Your task to perform on an android device: turn off improve location accuracy Image 0: 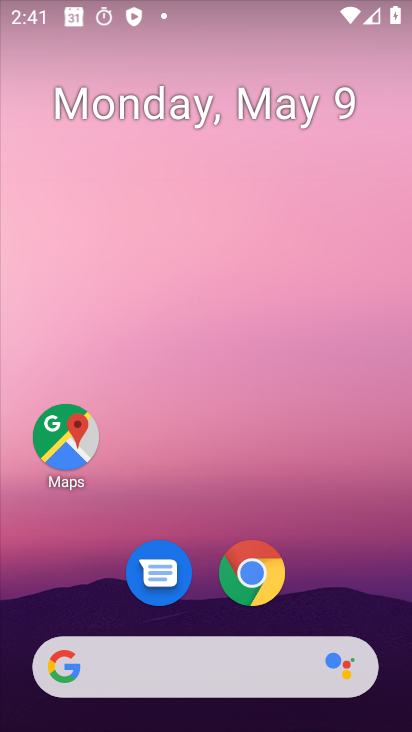
Step 0: drag from (339, 609) to (192, 163)
Your task to perform on an android device: turn off improve location accuracy Image 1: 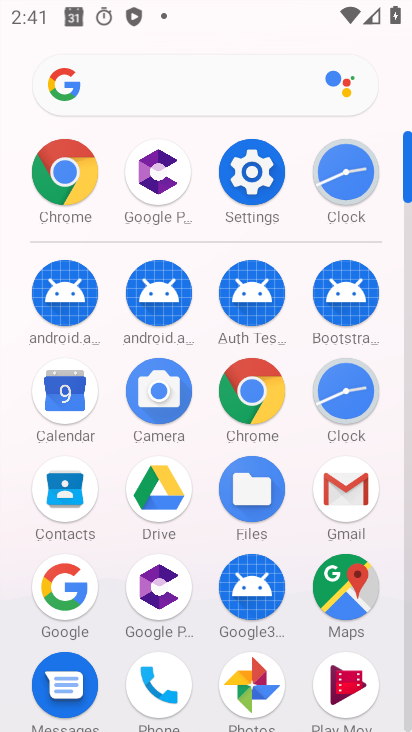
Step 1: click (250, 169)
Your task to perform on an android device: turn off improve location accuracy Image 2: 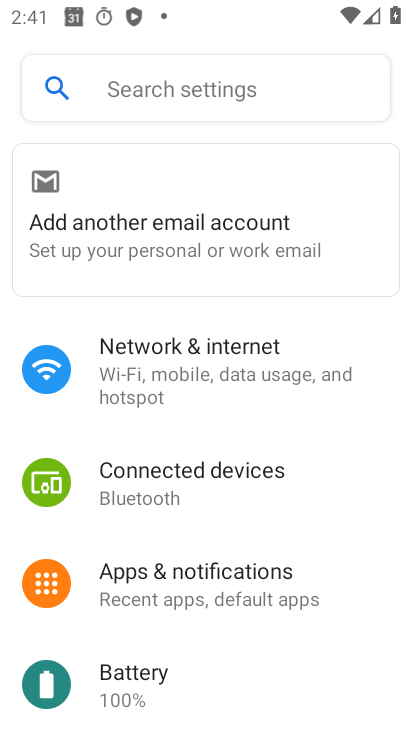
Step 2: drag from (246, 361) to (181, 52)
Your task to perform on an android device: turn off improve location accuracy Image 3: 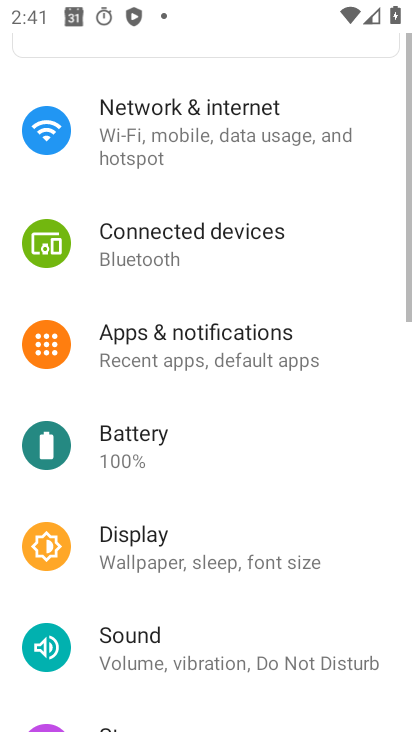
Step 3: drag from (271, 642) to (119, 64)
Your task to perform on an android device: turn off improve location accuracy Image 4: 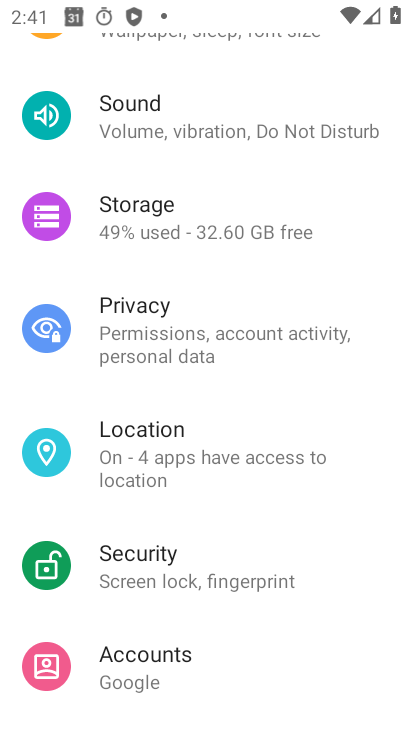
Step 4: click (154, 458)
Your task to perform on an android device: turn off improve location accuracy Image 5: 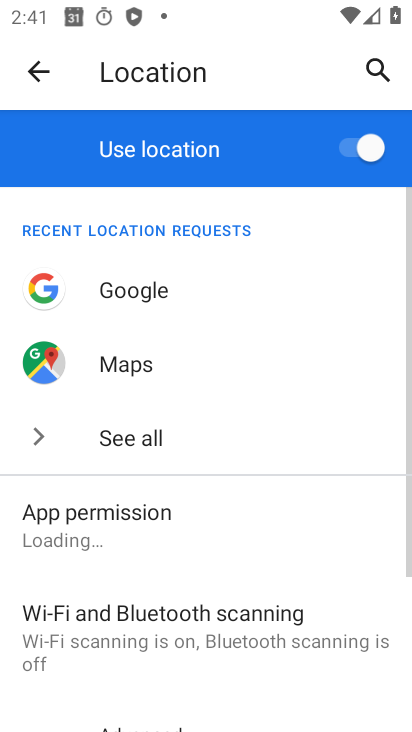
Step 5: click (82, 511)
Your task to perform on an android device: turn off improve location accuracy Image 6: 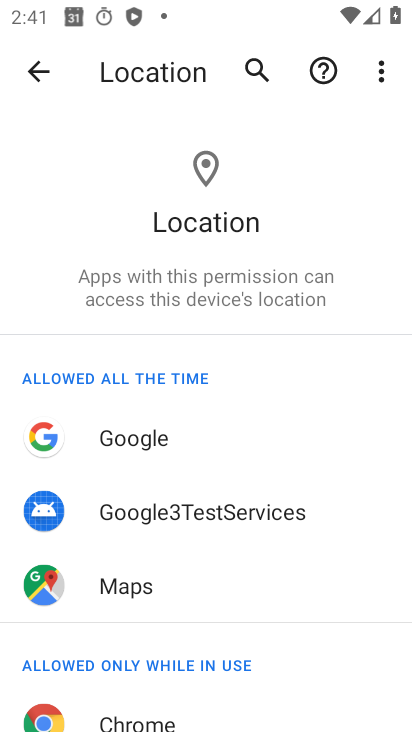
Step 6: click (34, 79)
Your task to perform on an android device: turn off improve location accuracy Image 7: 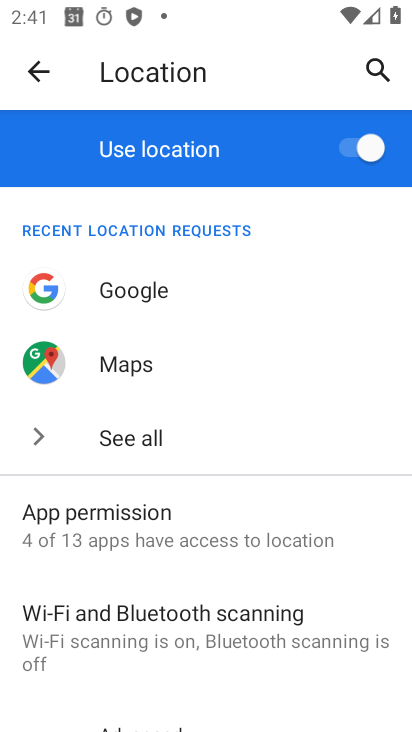
Step 7: click (114, 528)
Your task to perform on an android device: turn off improve location accuracy Image 8: 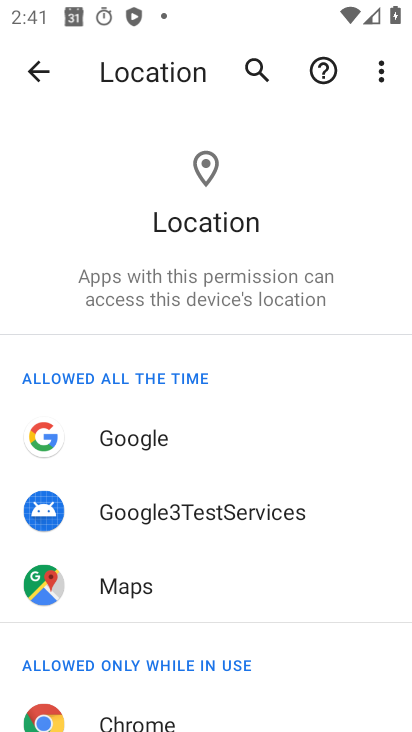
Step 8: click (37, 88)
Your task to perform on an android device: turn off improve location accuracy Image 9: 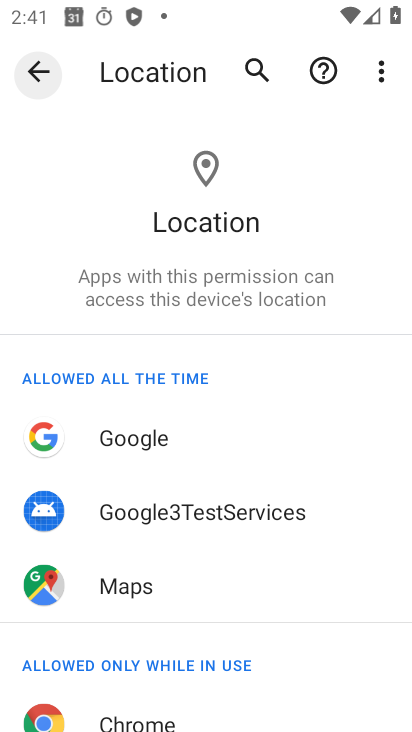
Step 9: click (37, 88)
Your task to perform on an android device: turn off improve location accuracy Image 10: 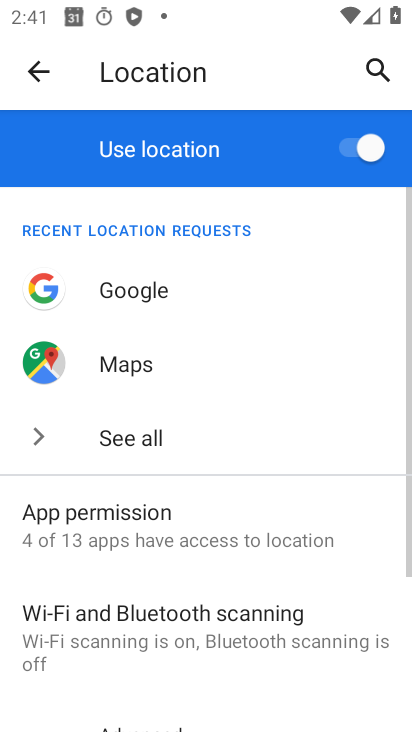
Step 10: drag from (165, 577) to (97, 37)
Your task to perform on an android device: turn off improve location accuracy Image 11: 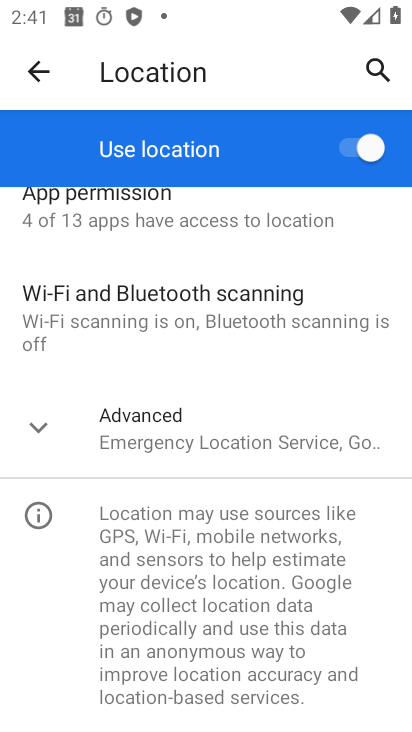
Step 11: click (164, 448)
Your task to perform on an android device: turn off improve location accuracy Image 12: 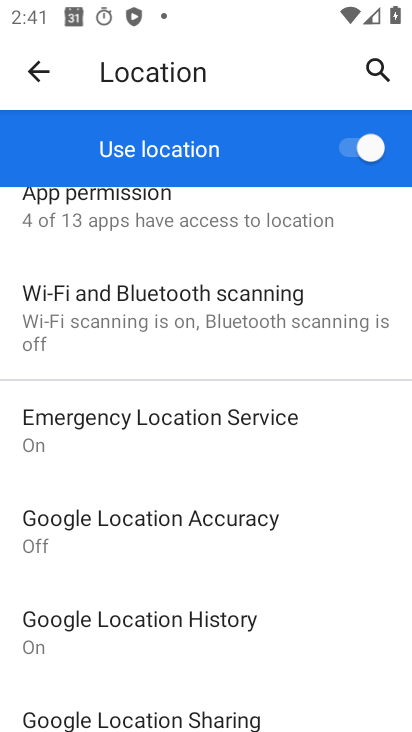
Step 12: click (174, 516)
Your task to perform on an android device: turn off improve location accuracy Image 13: 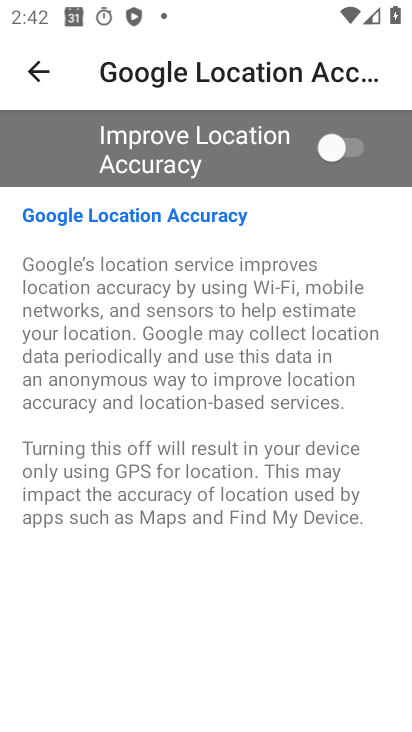
Step 13: task complete